Your task to perform on an android device: Turn on the flashlight Image 0: 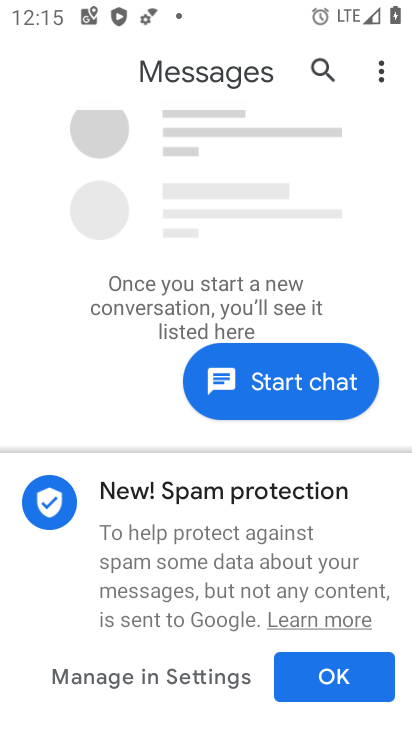
Step 0: press home button
Your task to perform on an android device: Turn on the flashlight Image 1: 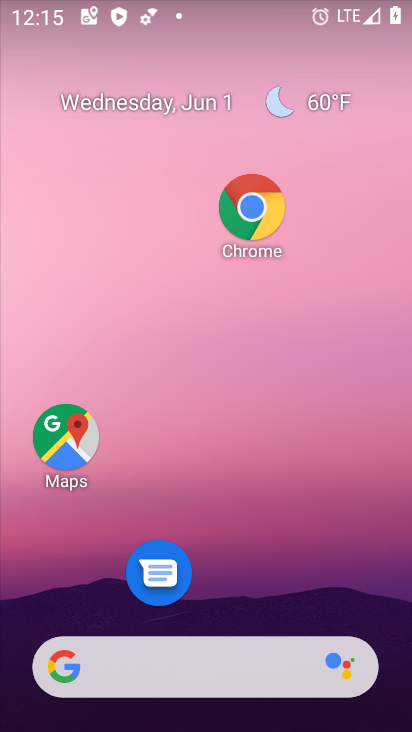
Step 1: drag from (210, 598) to (198, 205)
Your task to perform on an android device: Turn on the flashlight Image 2: 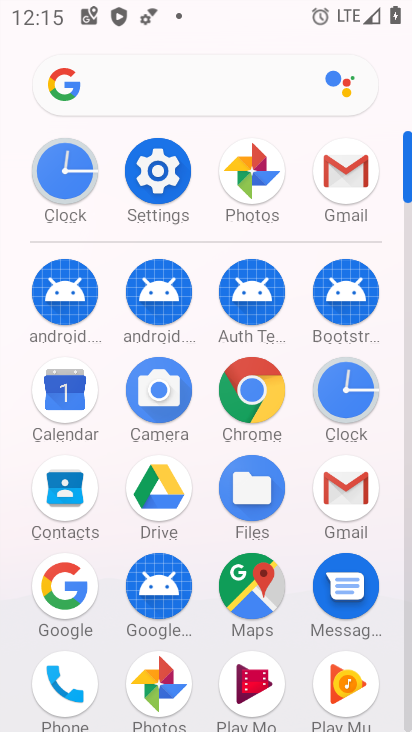
Step 2: click (167, 186)
Your task to perform on an android device: Turn on the flashlight Image 3: 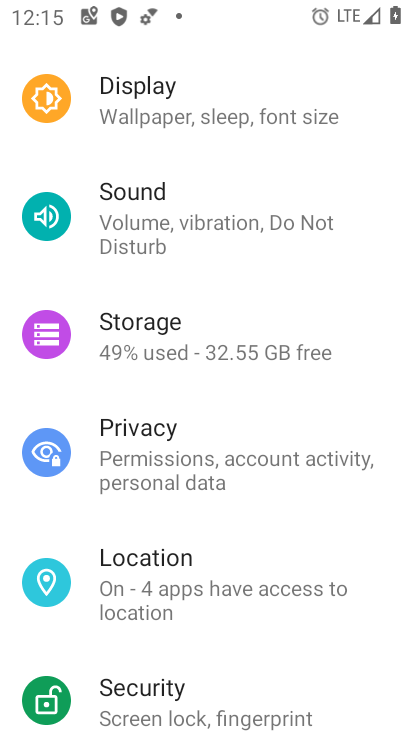
Step 3: task complete